Your task to perform on an android device: turn off sleep mode Image 0: 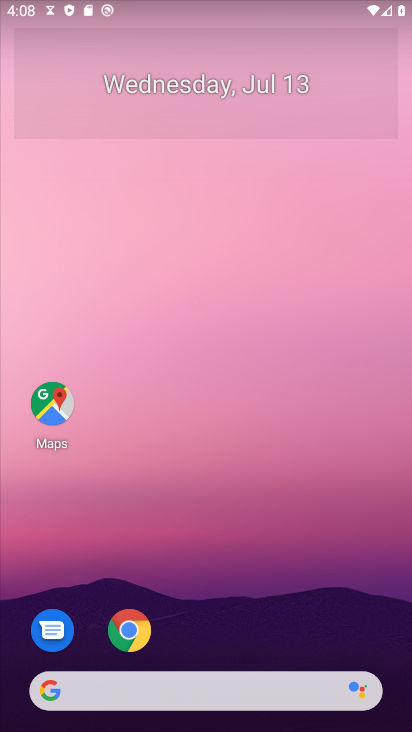
Step 0: press home button
Your task to perform on an android device: turn off sleep mode Image 1: 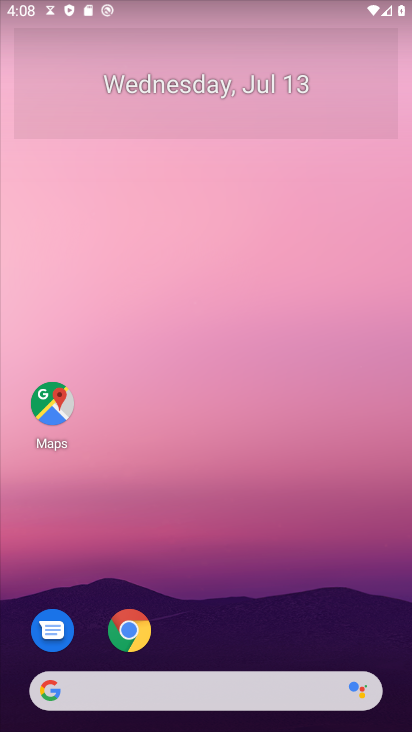
Step 1: drag from (317, 629) to (383, 58)
Your task to perform on an android device: turn off sleep mode Image 2: 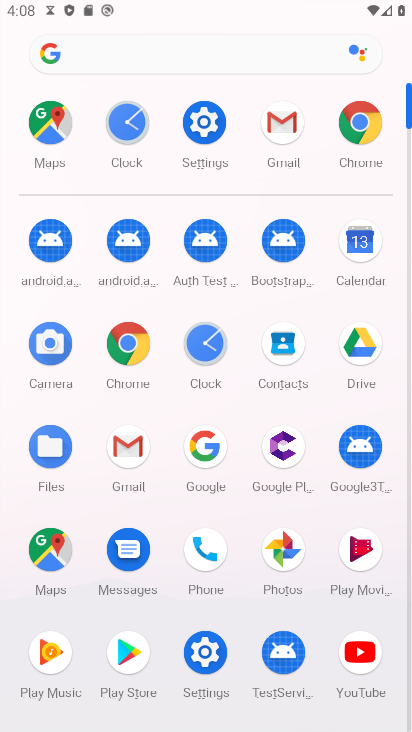
Step 2: click (208, 111)
Your task to perform on an android device: turn off sleep mode Image 3: 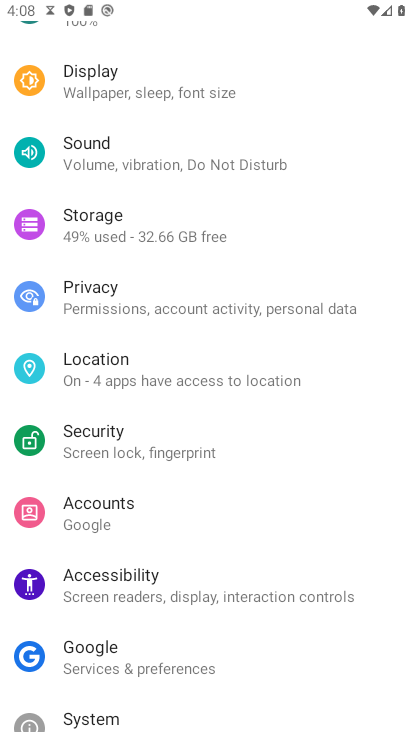
Step 3: click (141, 98)
Your task to perform on an android device: turn off sleep mode Image 4: 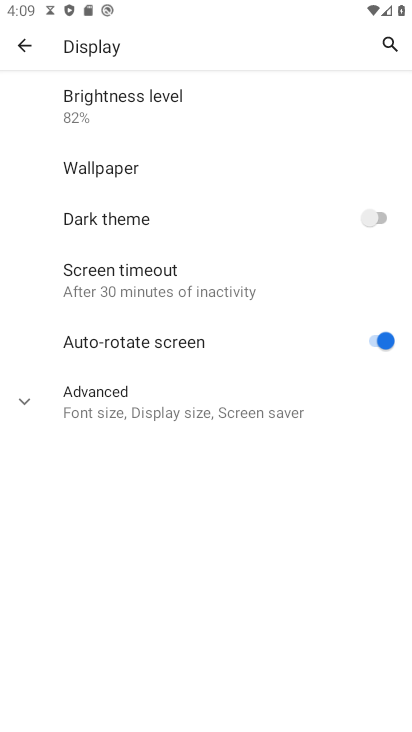
Step 4: task complete